Your task to perform on an android device: Toggle notifications for the Google Photos app Image 0: 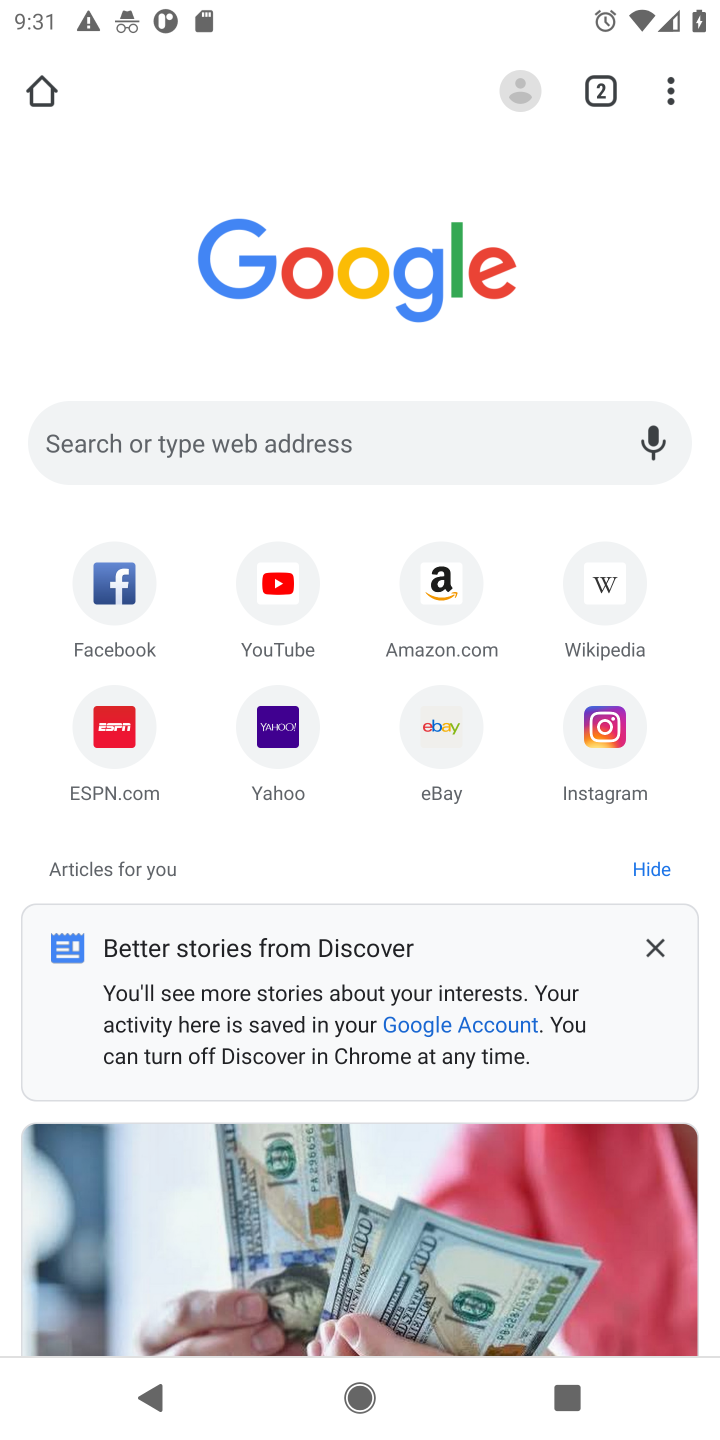
Step 0: press home button
Your task to perform on an android device: Toggle notifications for the Google Photos app Image 1: 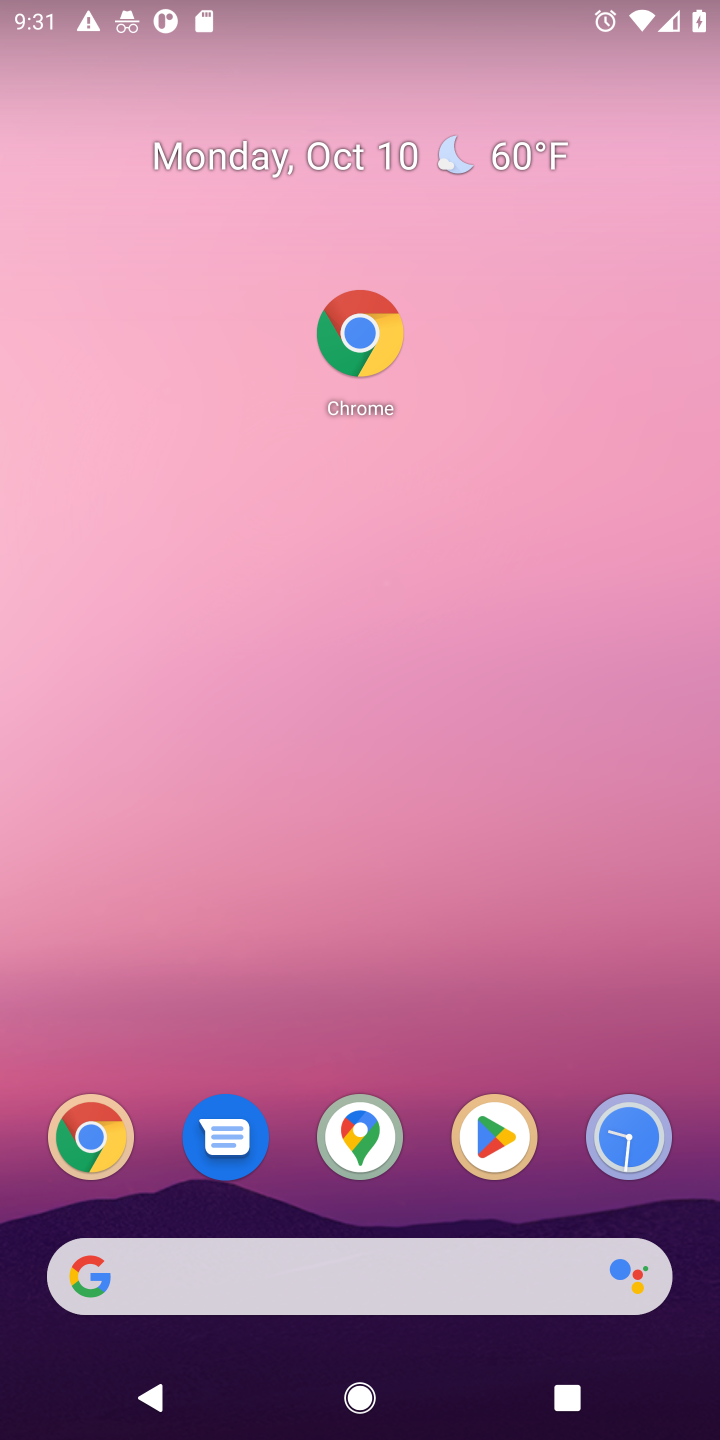
Step 1: drag from (447, 1206) to (463, 109)
Your task to perform on an android device: Toggle notifications for the Google Photos app Image 2: 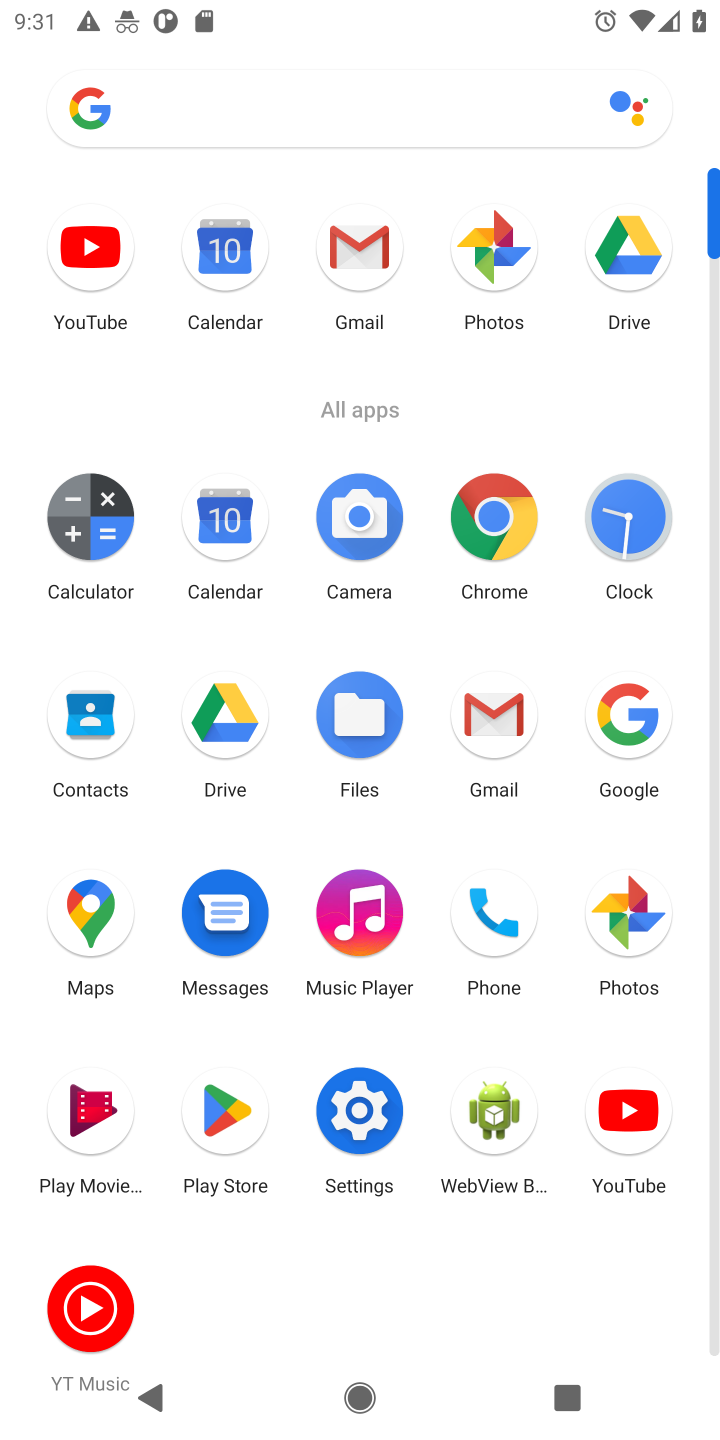
Step 2: click (634, 919)
Your task to perform on an android device: Toggle notifications for the Google Photos app Image 3: 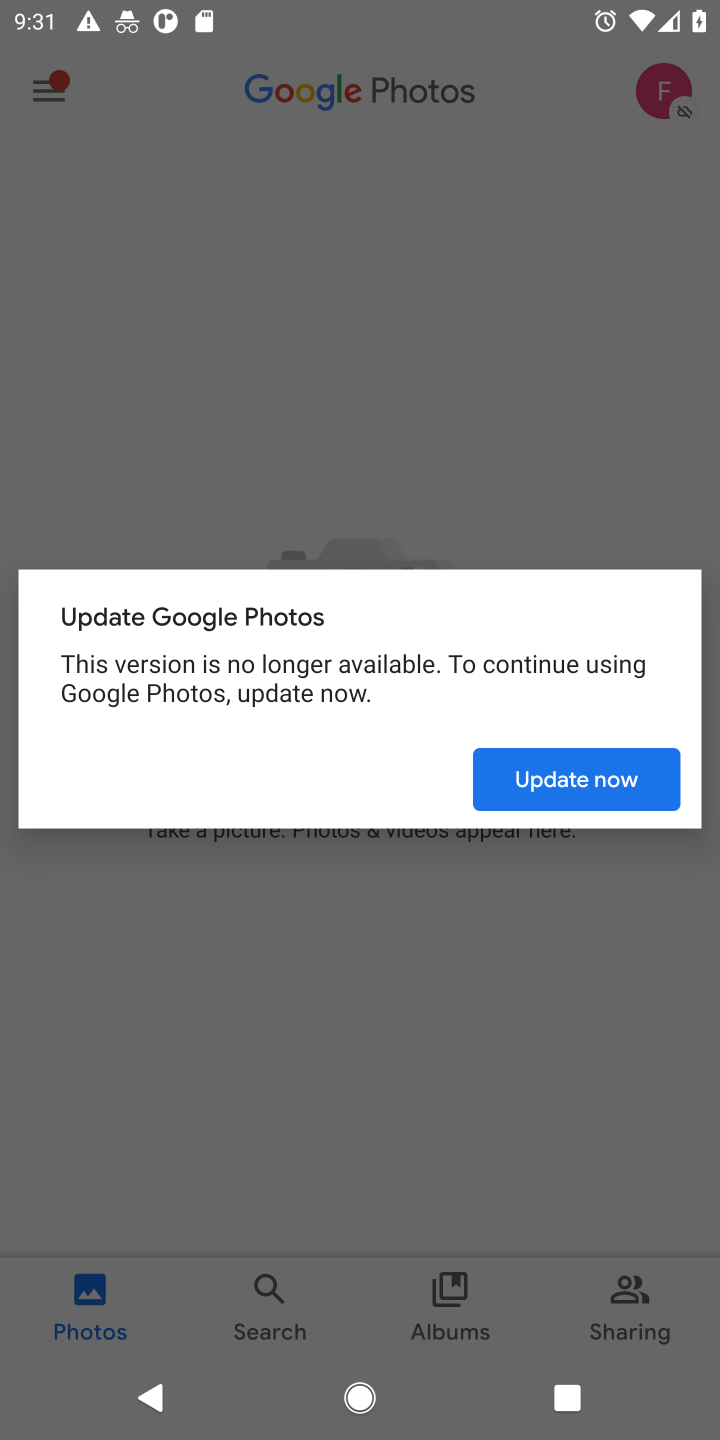
Step 3: click (587, 777)
Your task to perform on an android device: Toggle notifications for the Google Photos app Image 4: 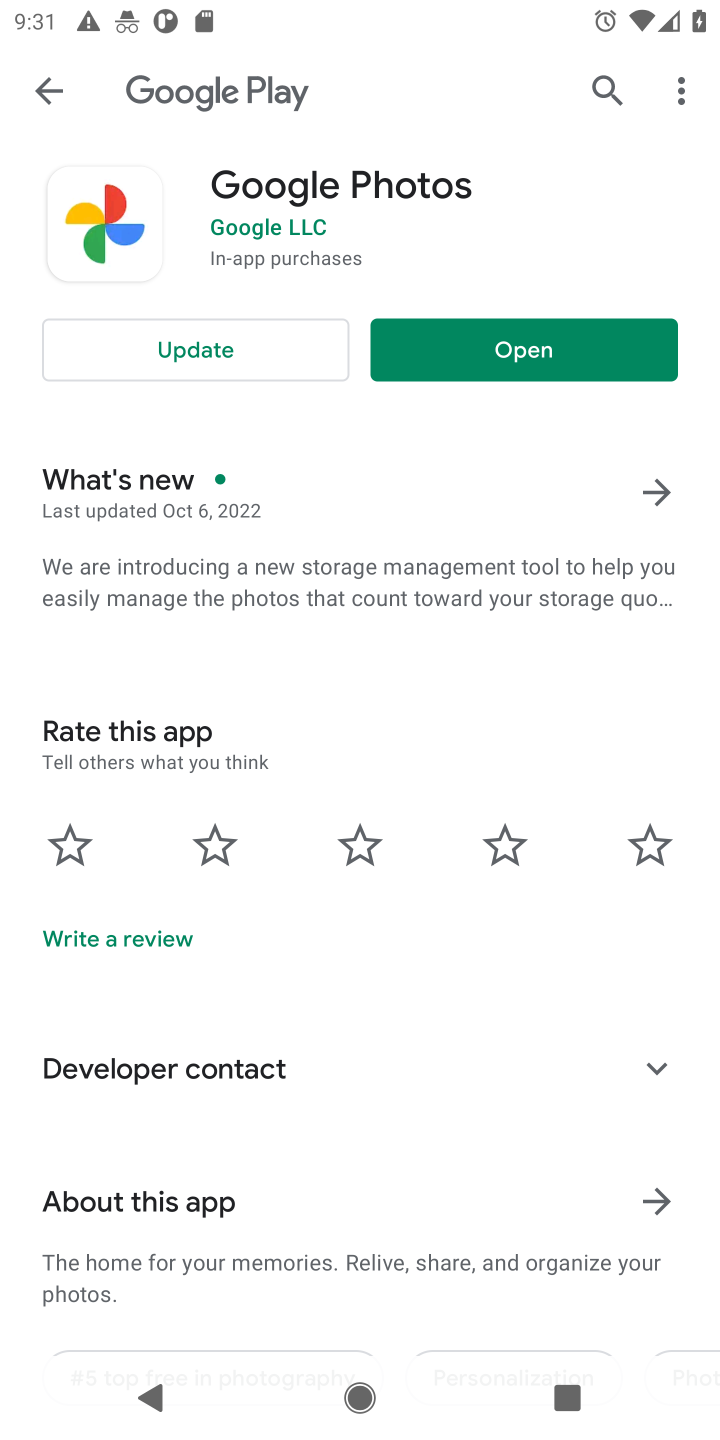
Step 4: click (184, 337)
Your task to perform on an android device: Toggle notifications for the Google Photos app Image 5: 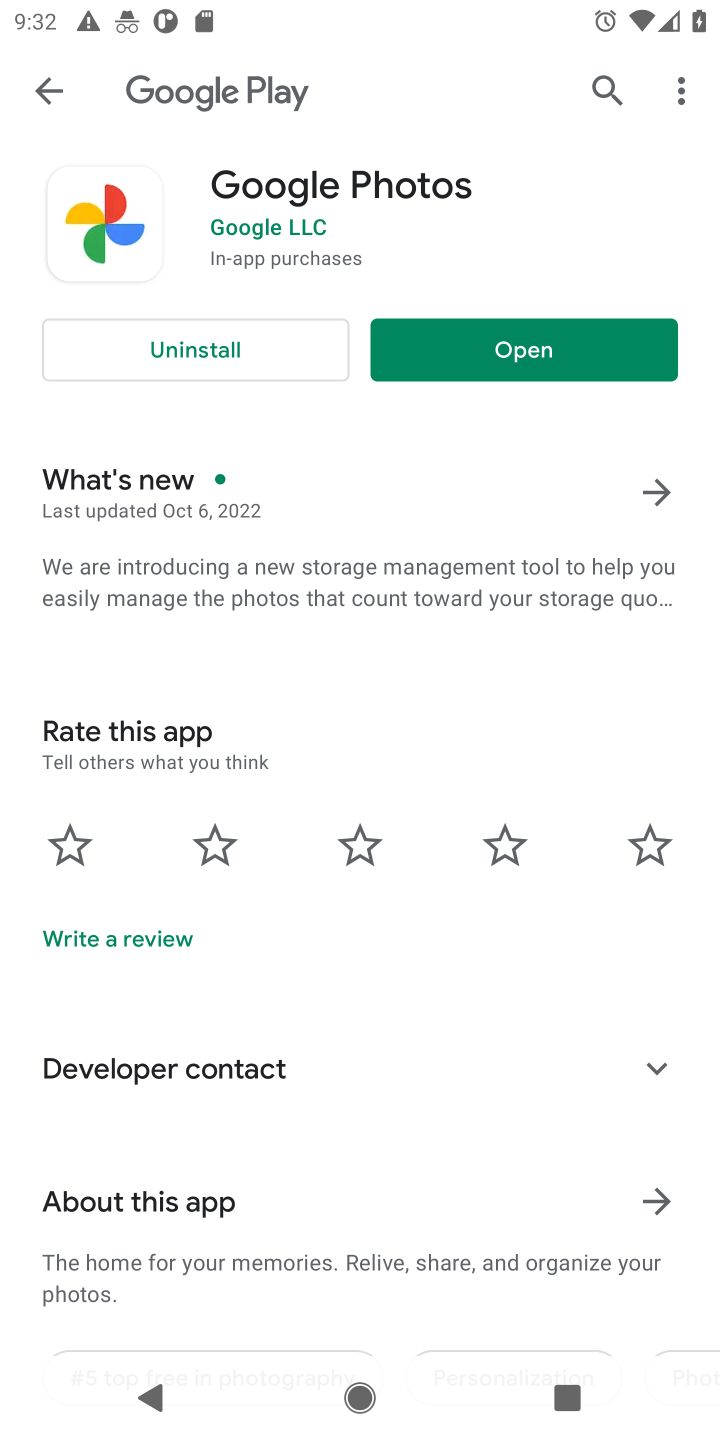
Step 5: click (506, 356)
Your task to perform on an android device: Toggle notifications for the Google Photos app Image 6: 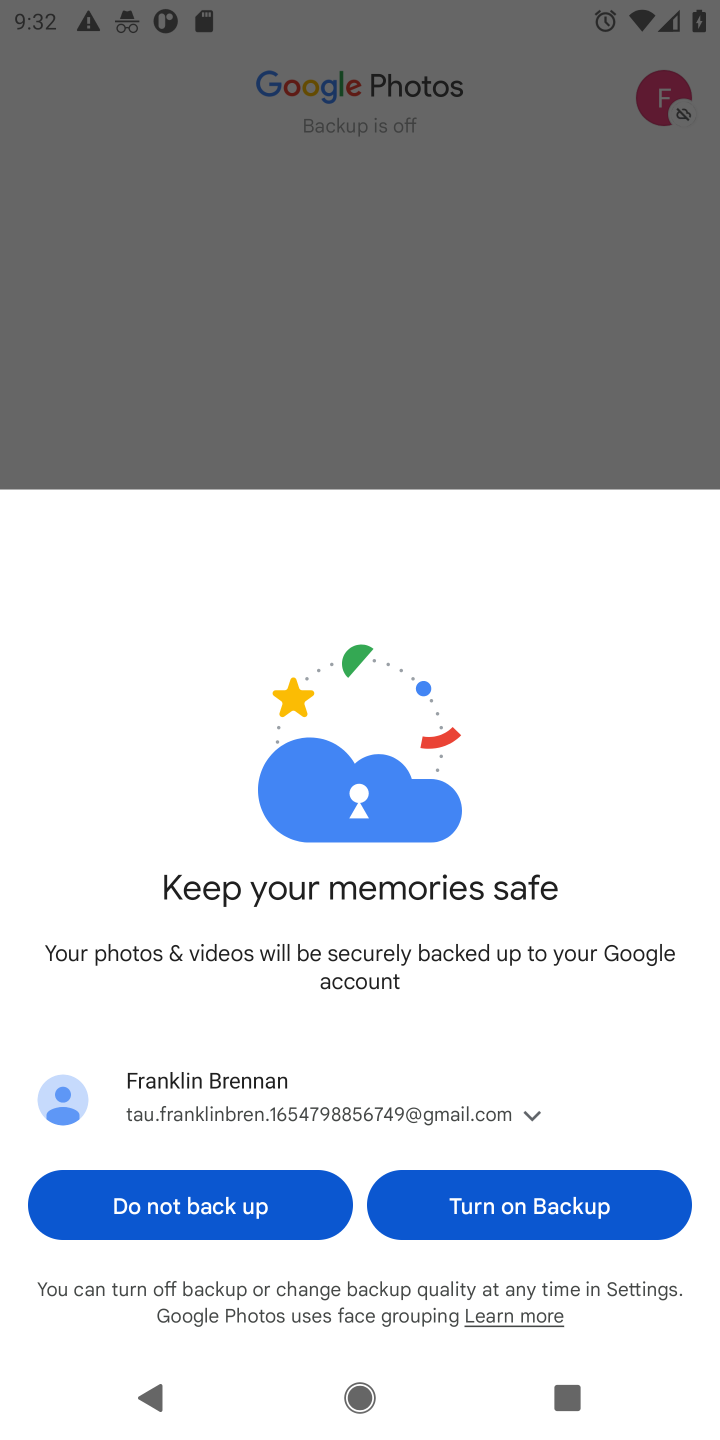
Step 6: click (520, 1194)
Your task to perform on an android device: Toggle notifications for the Google Photos app Image 7: 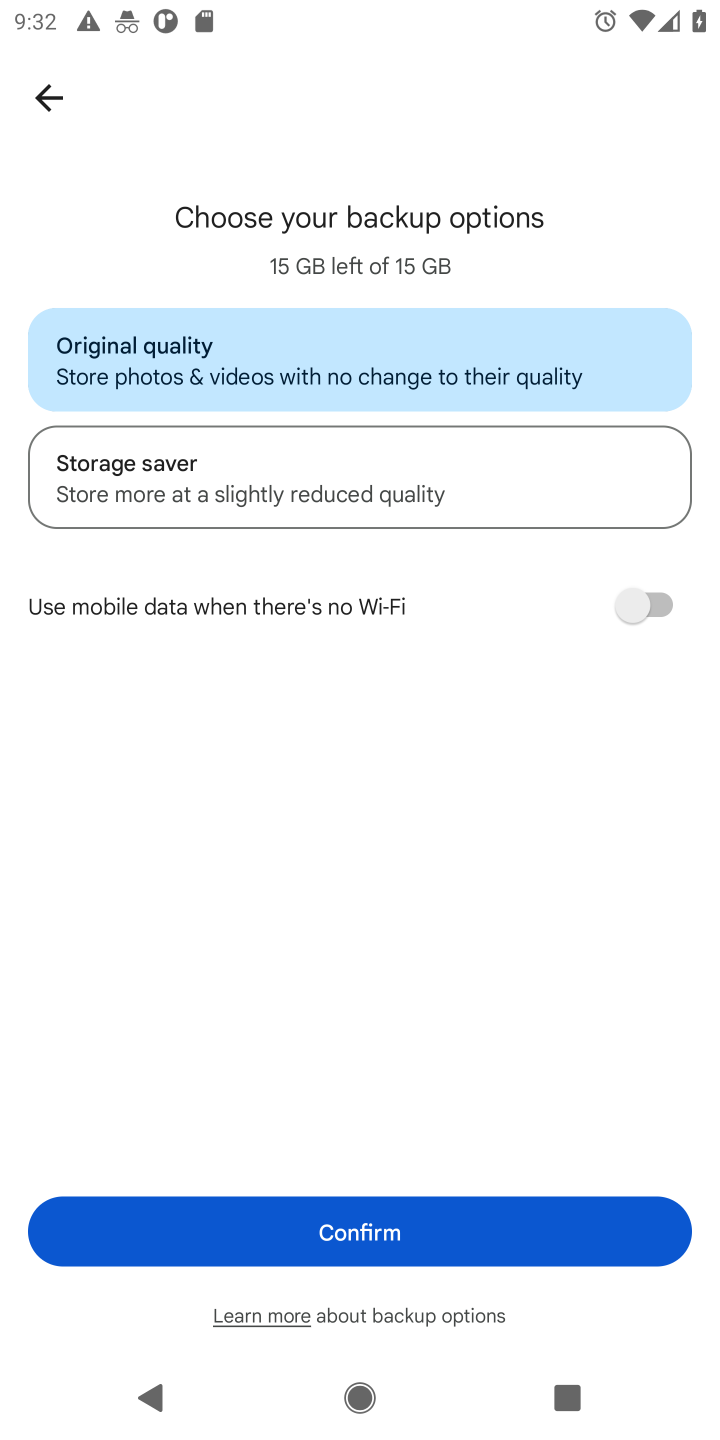
Step 7: click (338, 1236)
Your task to perform on an android device: Toggle notifications for the Google Photos app Image 8: 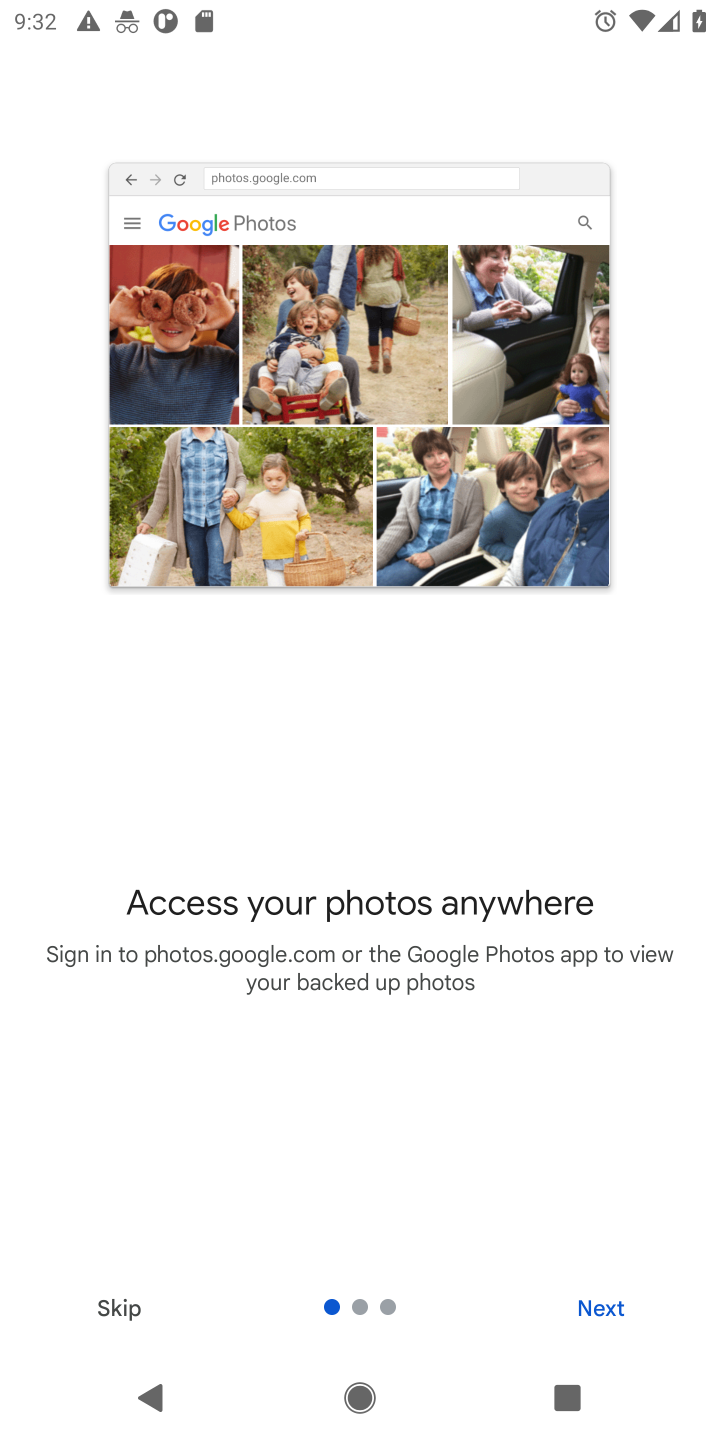
Step 8: click (110, 1304)
Your task to perform on an android device: Toggle notifications for the Google Photos app Image 9: 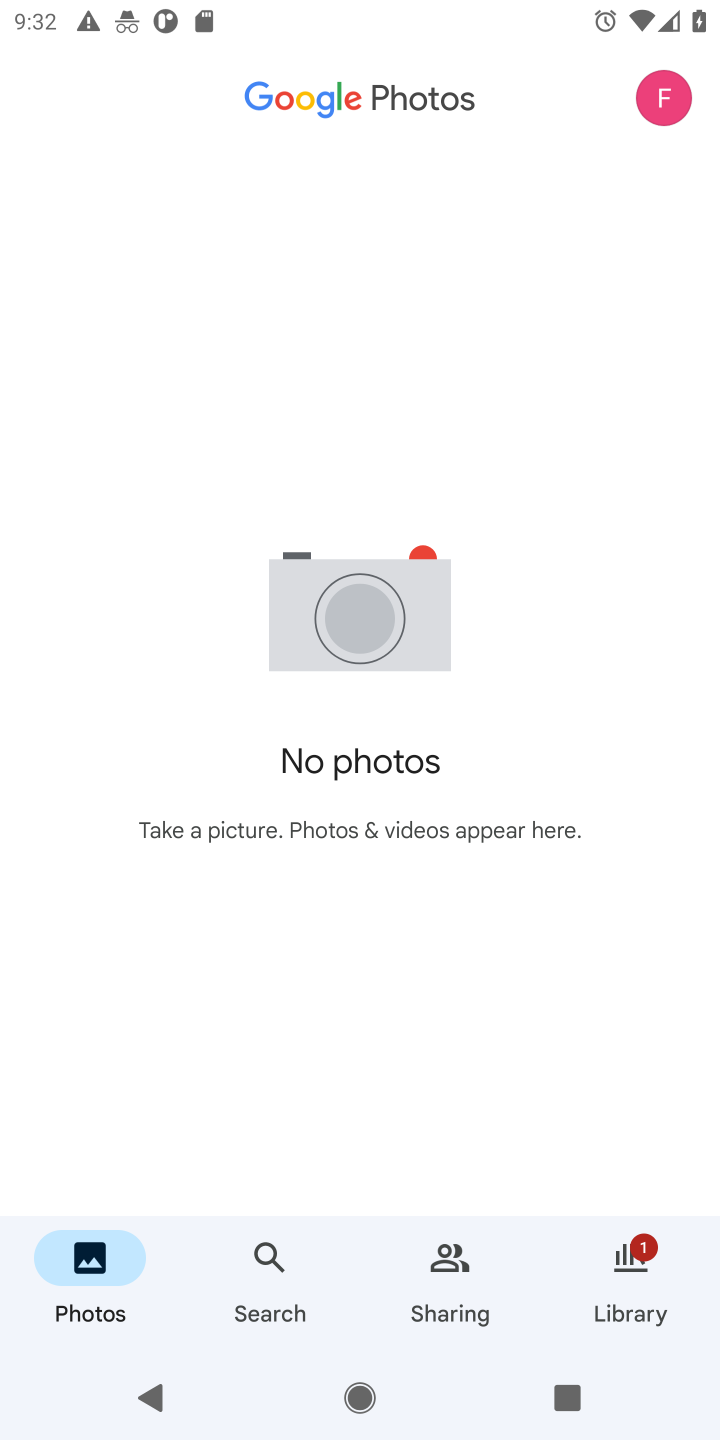
Step 9: click (660, 102)
Your task to perform on an android device: Toggle notifications for the Google Photos app Image 10: 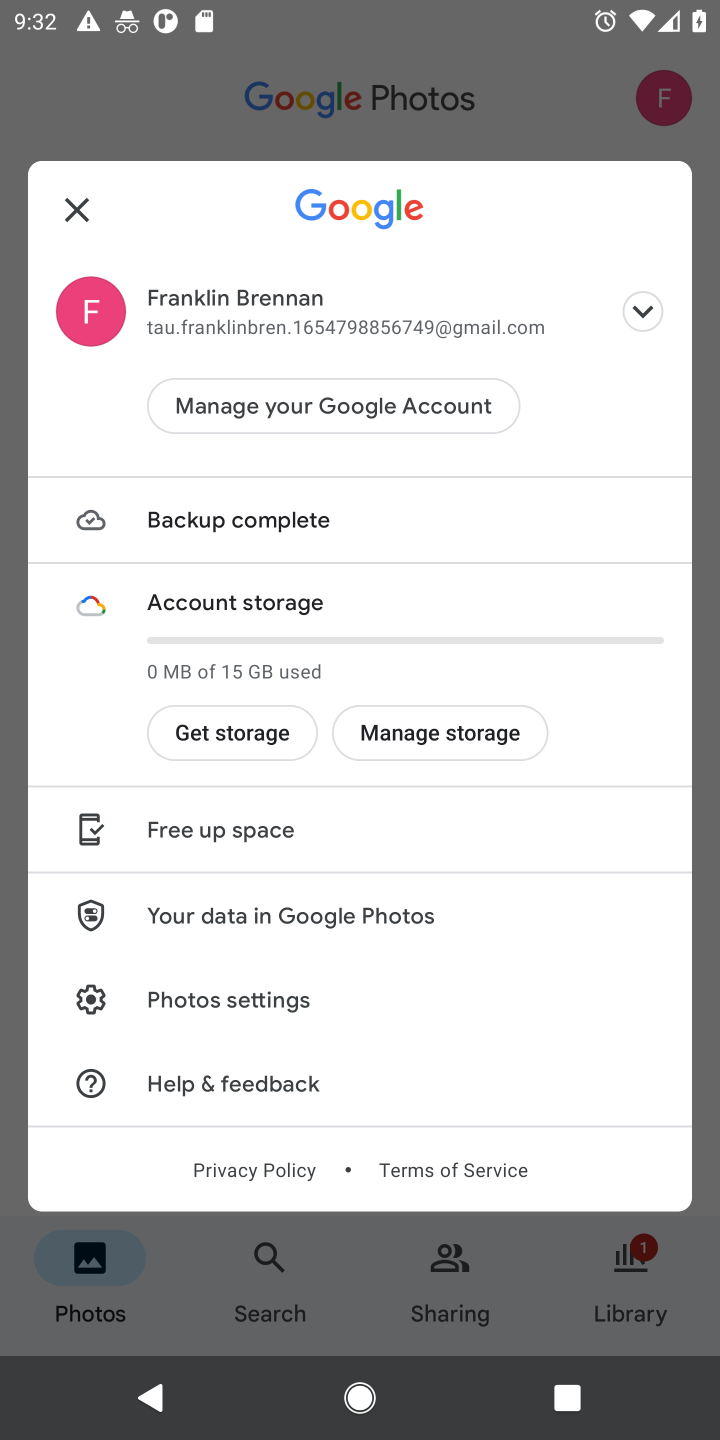
Step 10: click (200, 1008)
Your task to perform on an android device: Toggle notifications for the Google Photos app Image 11: 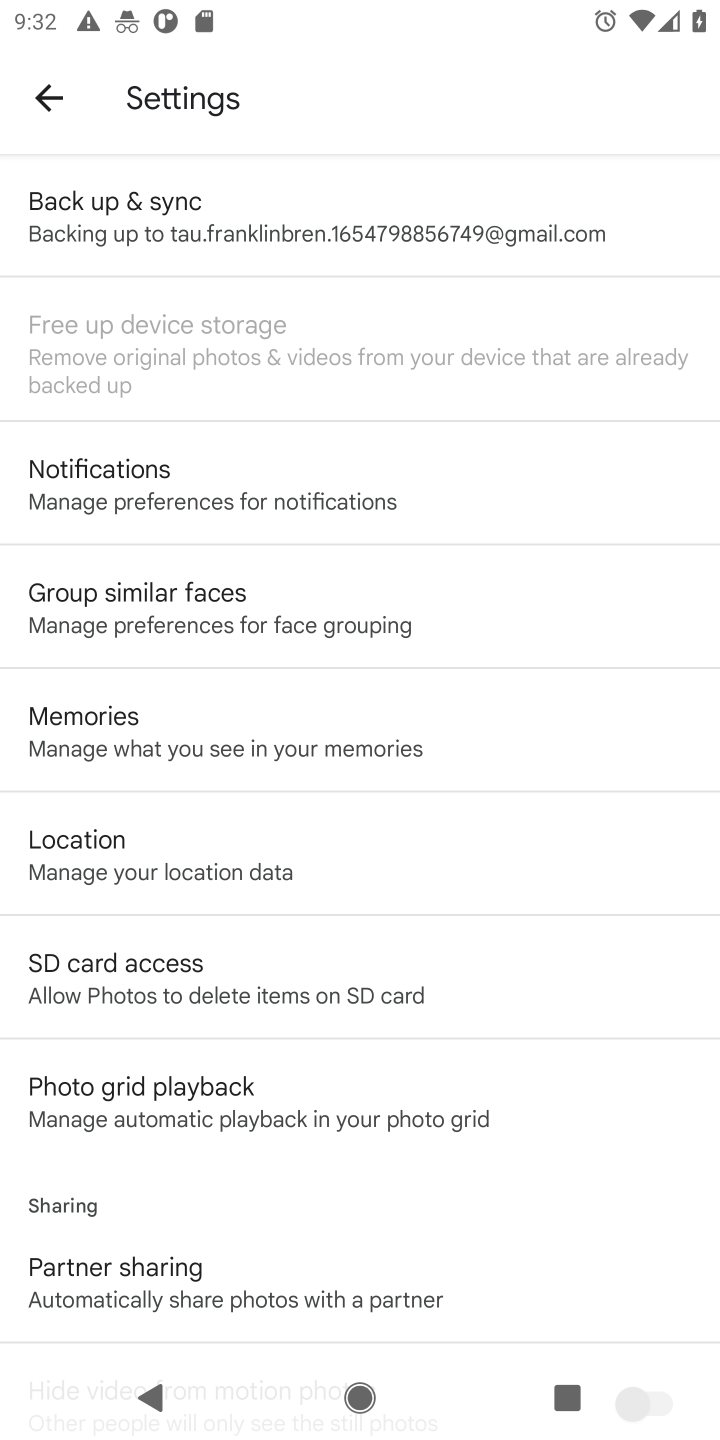
Step 11: click (140, 485)
Your task to perform on an android device: Toggle notifications for the Google Photos app Image 12: 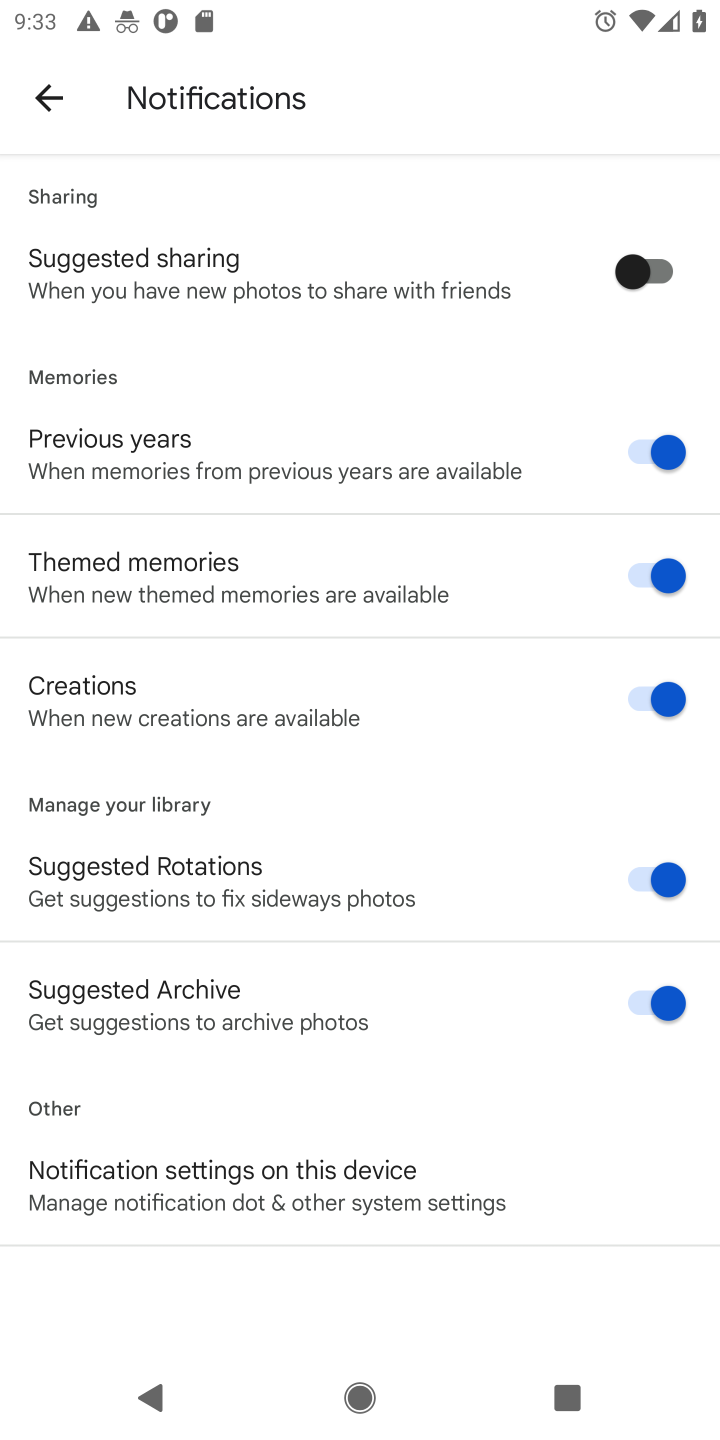
Step 12: click (277, 1191)
Your task to perform on an android device: Toggle notifications for the Google Photos app Image 13: 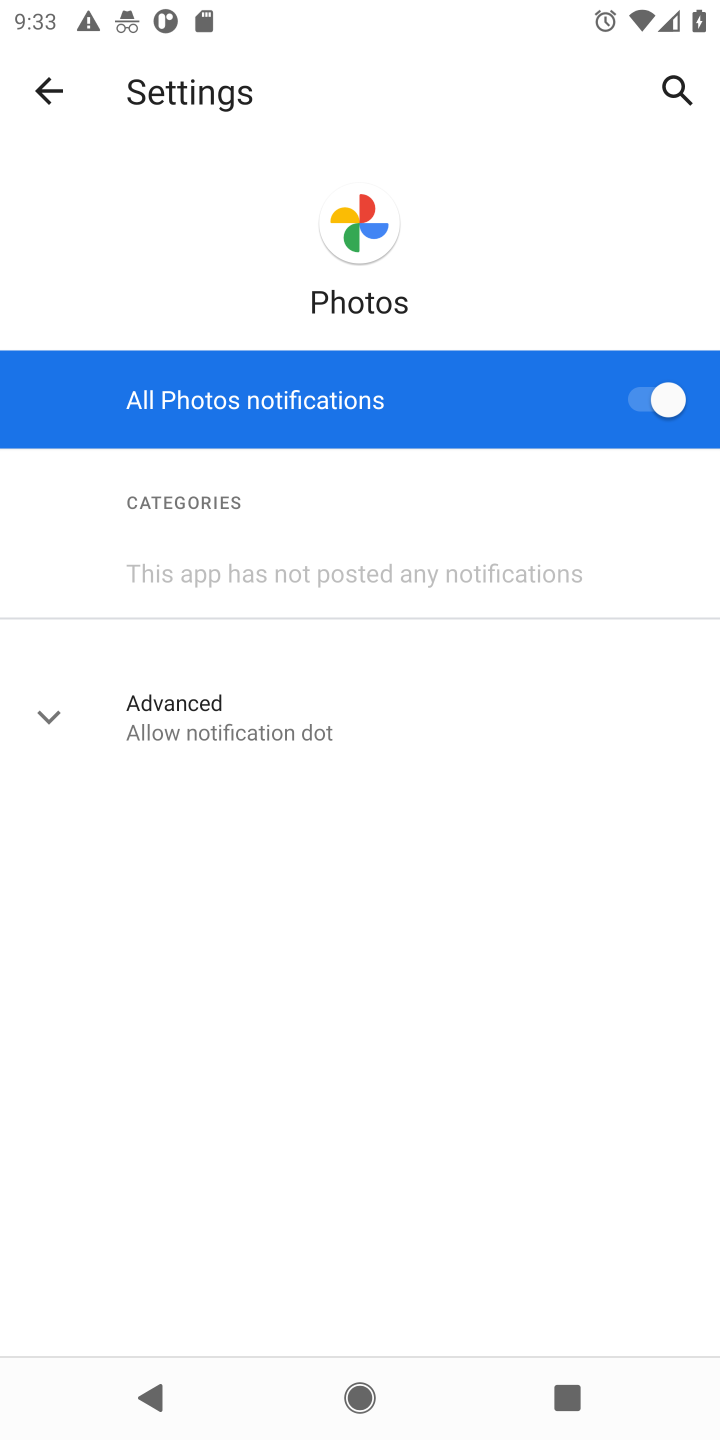
Step 13: click (636, 396)
Your task to perform on an android device: Toggle notifications for the Google Photos app Image 14: 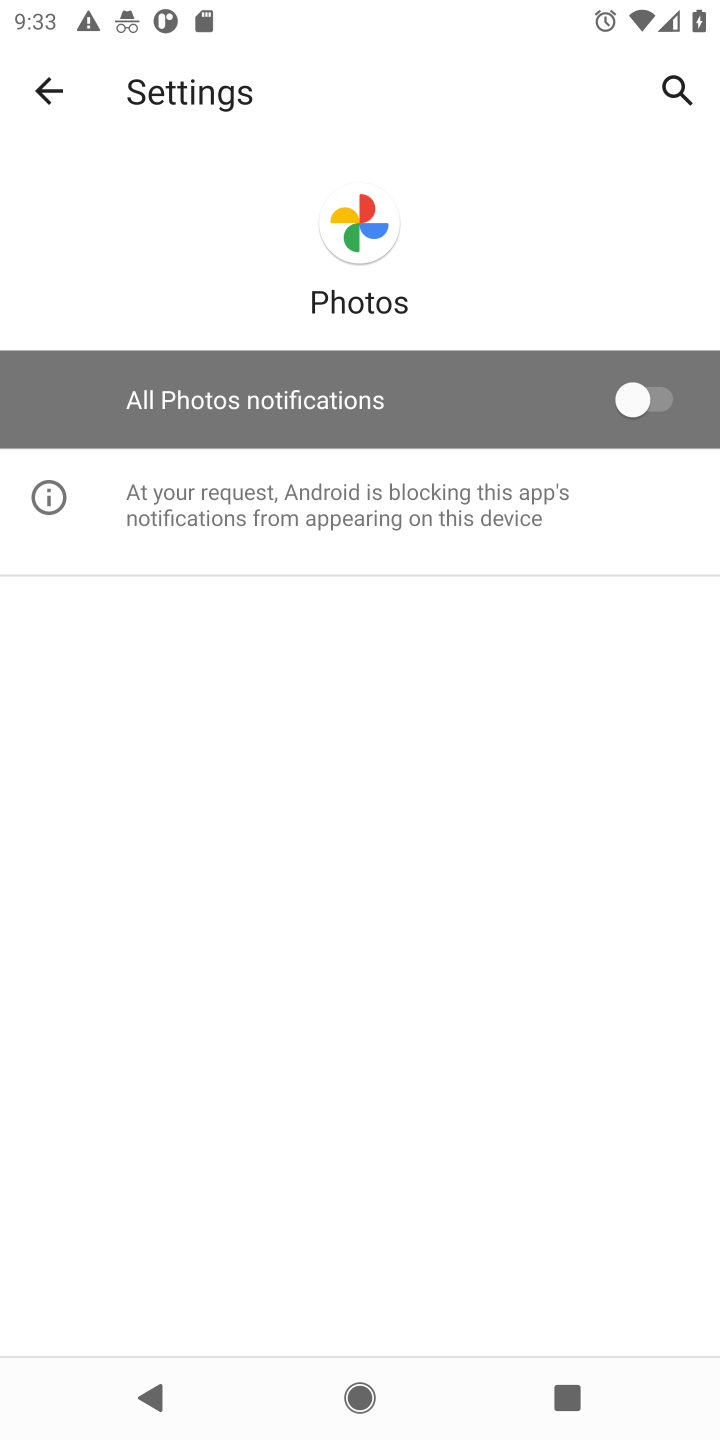
Step 14: task complete